Your task to perform on an android device: turn on javascript in the chrome app Image 0: 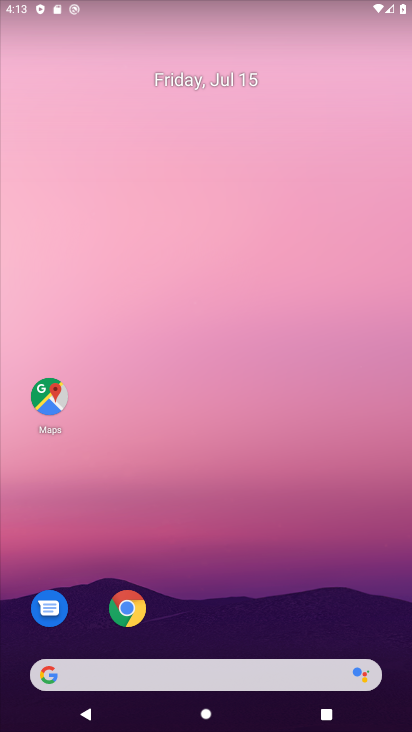
Step 0: click (133, 609)
Your task to perform on an android device: turn on javascript in the chrome app Image 1: 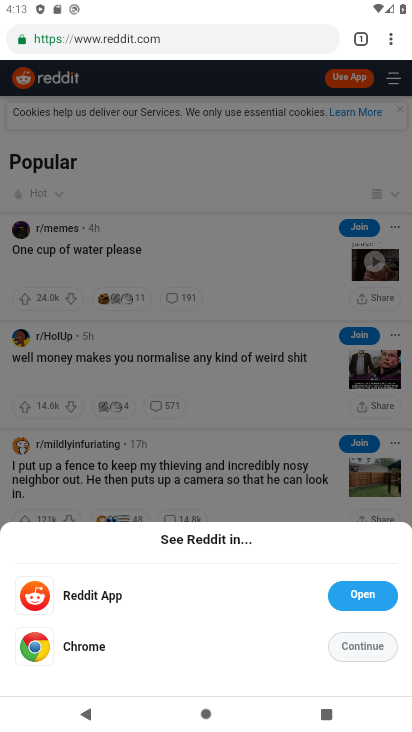
Step 1: click (391, 31)
Your task to perform on an android device: turn on javascript in the chrome app Image 2: 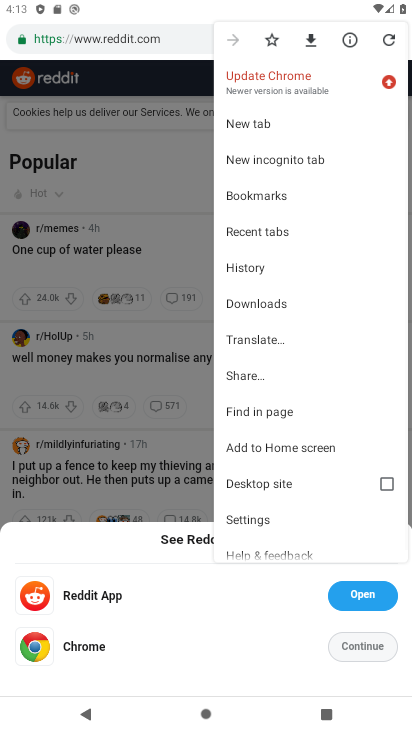
Step 2: click (255, 507)
Your task to perform on an android device: turn on javascript in the chrome app Image 3: 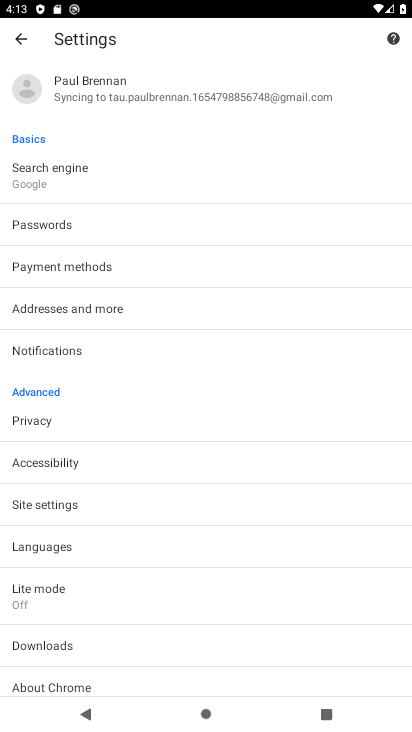
Step 3: click (89, 514)
Your task to perform on an android device: turn on javascript in the chrome app Image 4: 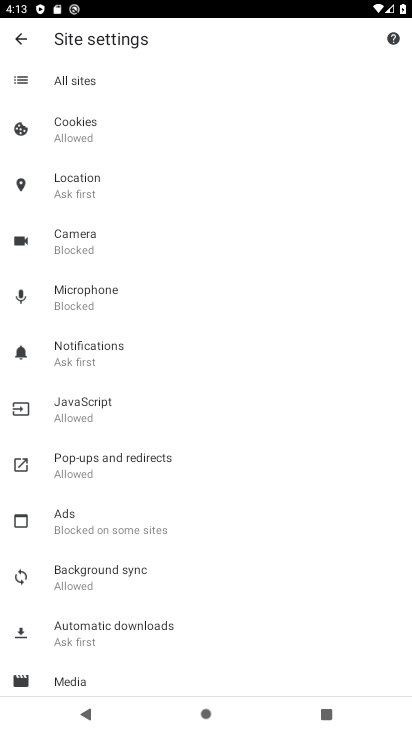
Step 4: click (114, 412)
Your task to perform on an android device: turn on javascript in the chrome app Image 5: 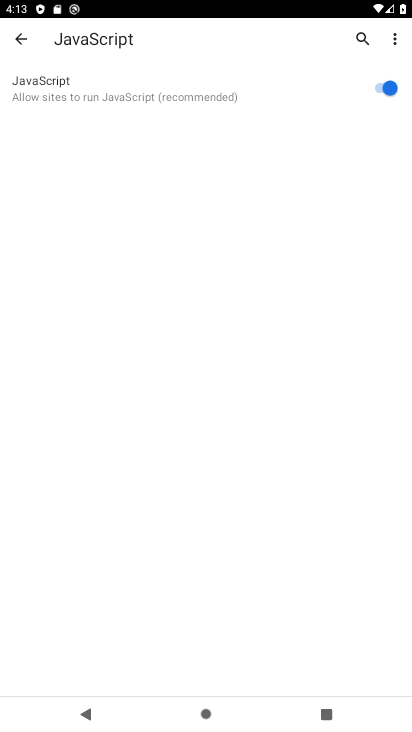
Step 5: task complete